Your task to perform on an android device: turn on priority inbox in the gmail app Image 0: 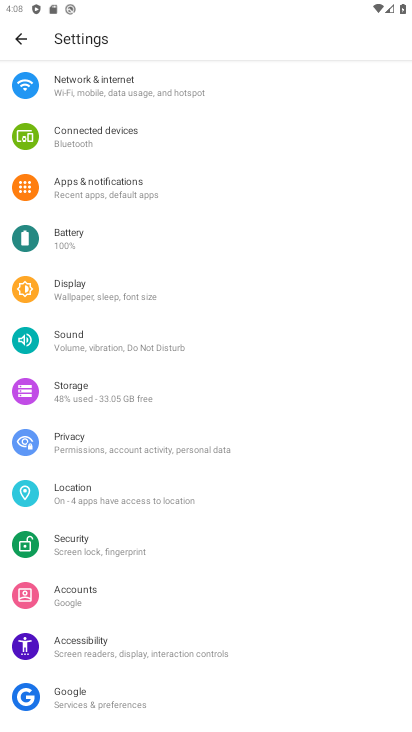
Step 0: press home button
Your task to perform on an android device: turn on priority inbox in the gmail app Image 1: 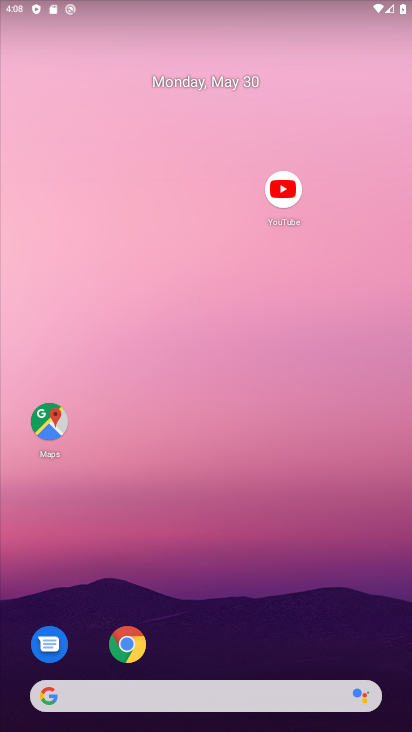
Step 1: drag from (225, 637) to (221, 211)
Your task to perform on an android device: turn on priority inbox in the gmail app Image 2: 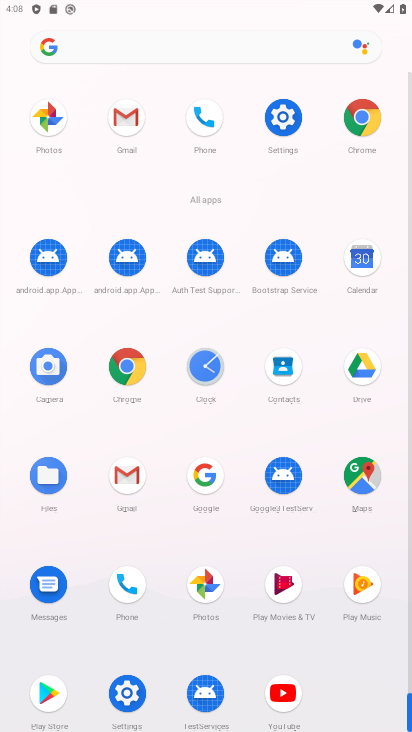
Step 2: click (121, 117)
Your task to perform on an android device: turn on priority inbox in the gmail app Image 3: 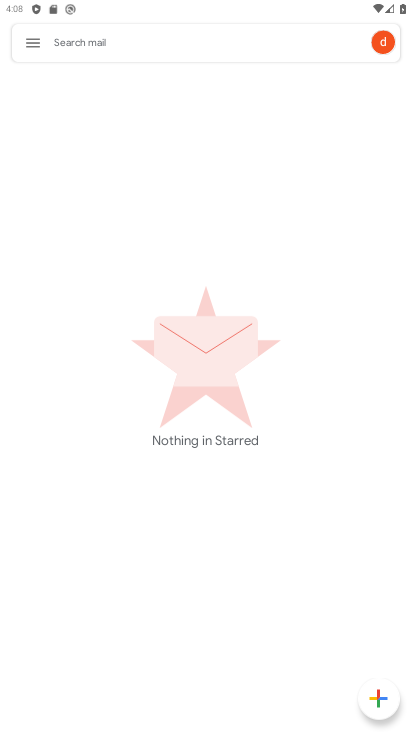
Step 3: click (41, 52)
Your task to perform on an android device: turn on priority inbox in the gmail app Image 4: 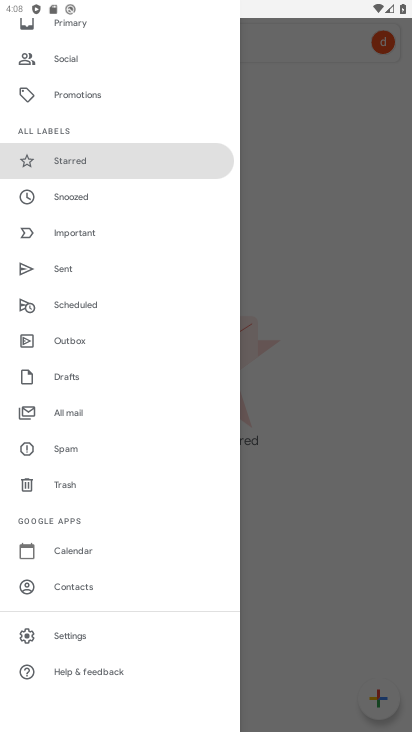
Step 4: click (121, 642)
Your task to perform on an android device: turn on priority inbox in the gmail app Image 5: 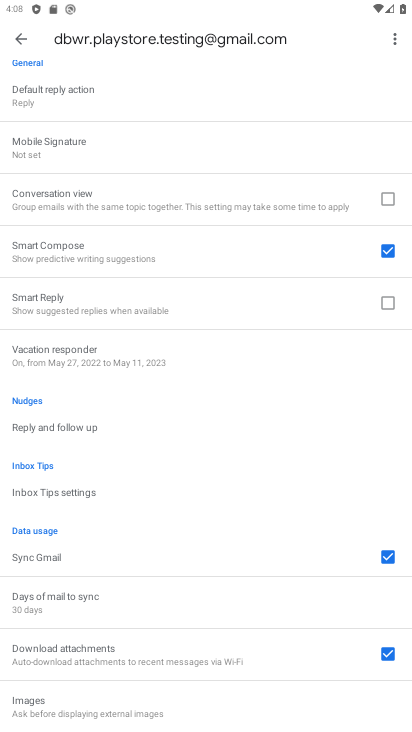
Step 5: drag from (171, 110) to (76, 666)
Your task to perform on an android device: turn on priority inbox in the gmail app Image 6: 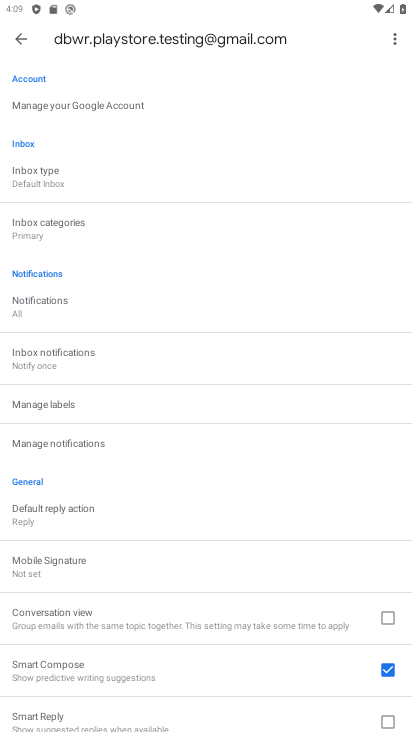
Step 6: click (76, 185)
Your task to perform on an android device: turn on priority inbox in the gmail app Image 7: 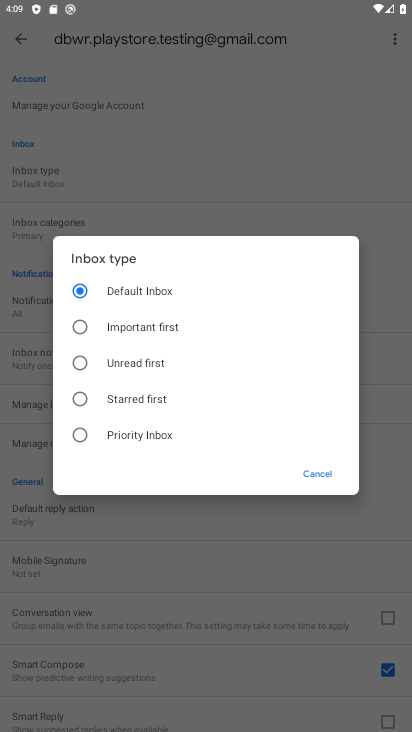
Step 7: click (223, 434)
Your task to perform on an android device: turn on priority inbox in the gmail app Image 8: 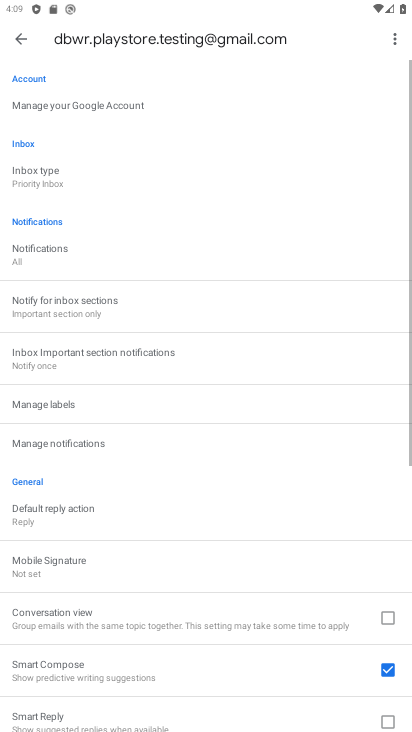
Step 8: task complete